Your task to perform on an android device: add a contact Image 0: 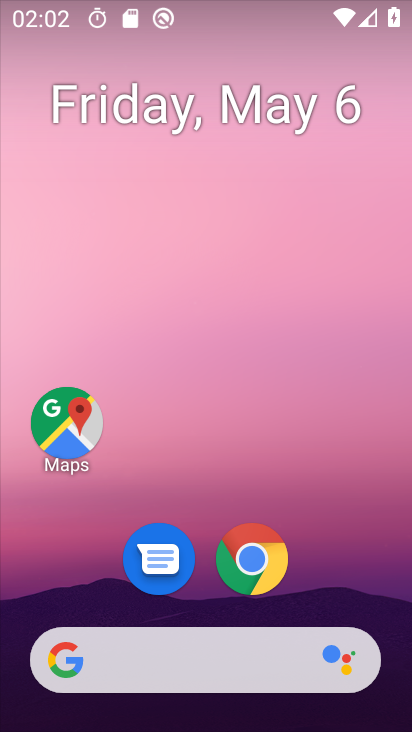
Step 0: drag from (246, 640) to (265, 4)
Your task to perform on an android device: add a contact Image 1: 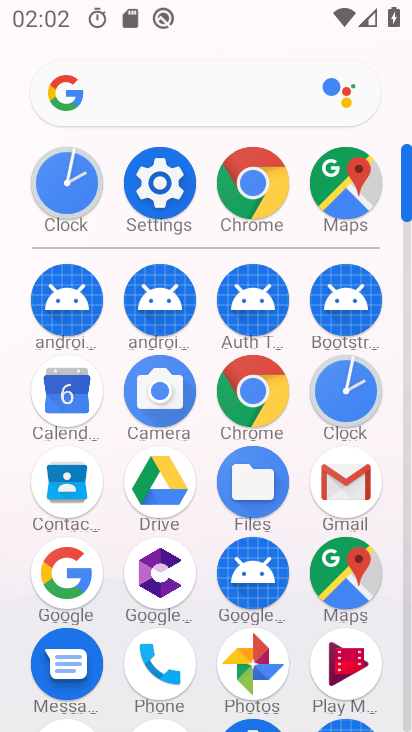
Step 1: click (68, 495)
Your task to perform on an android device: add a contact Image 2: 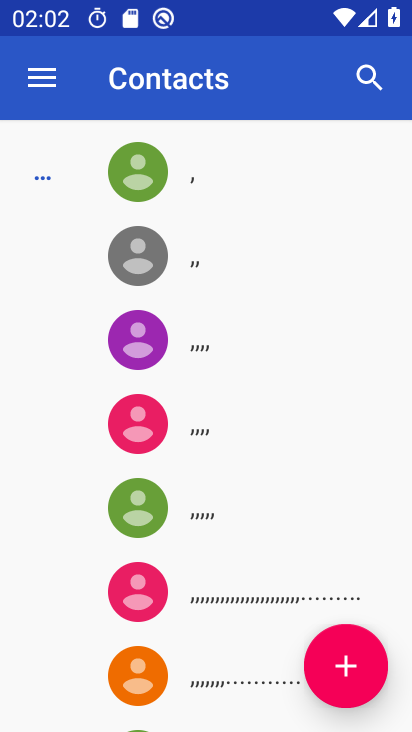
Step 2: click (351, 664)
Your task to perform on an android device: add a contact Image 3: 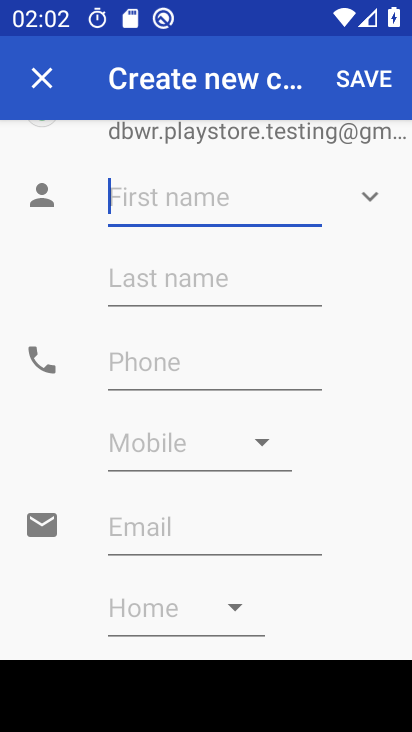
Step 3: type "sfesfdfgvd"
Your task to perform on an android device: add a contact Image 4: 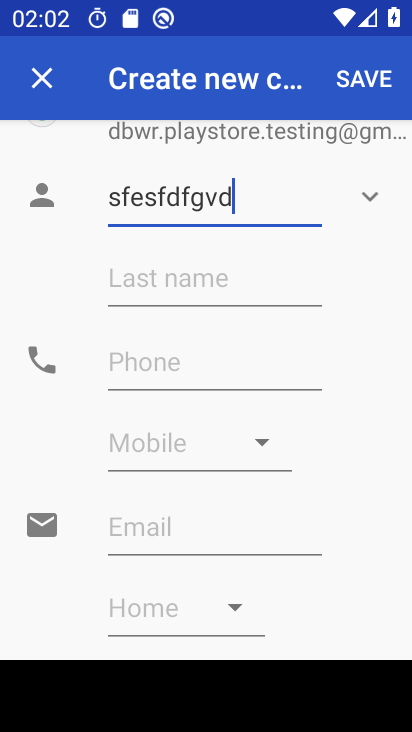
Step 4: click (219, 379)
Your task to perform on an android device: add a contact Image 5: 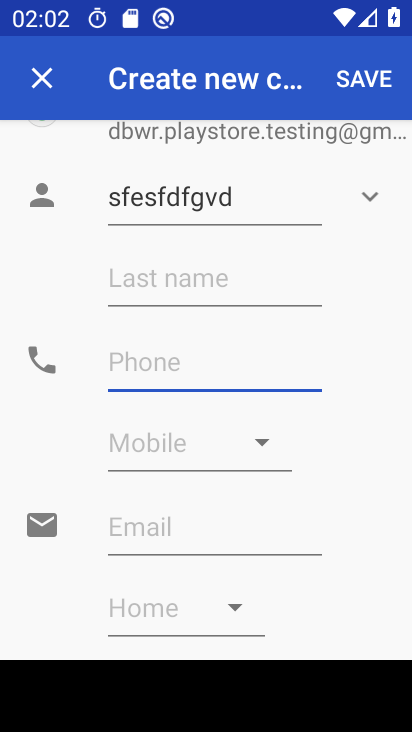
Step 5: type "8876567889"
Your task to perform on an android device: add a contact Image 6: 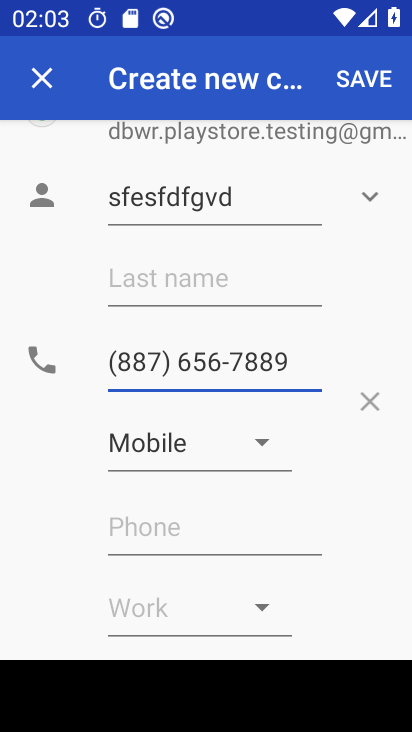
Step 6: click (374, 80)
Your task to perform on an android device: add a contact Image 7: 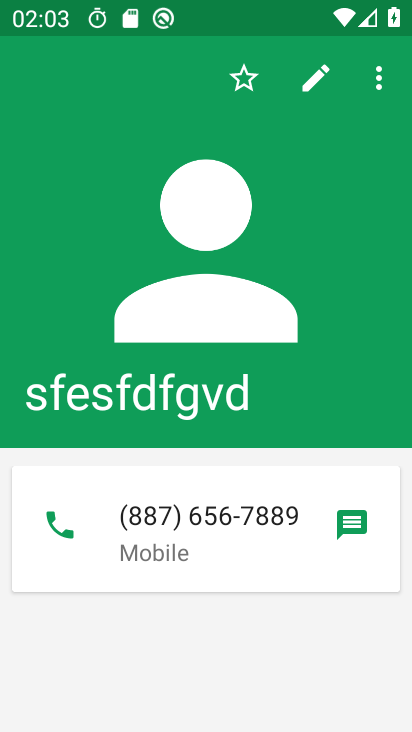
Step 7: task complete